Your task to perform on an android device: Open calendar and show me the third week of next month Image 0: 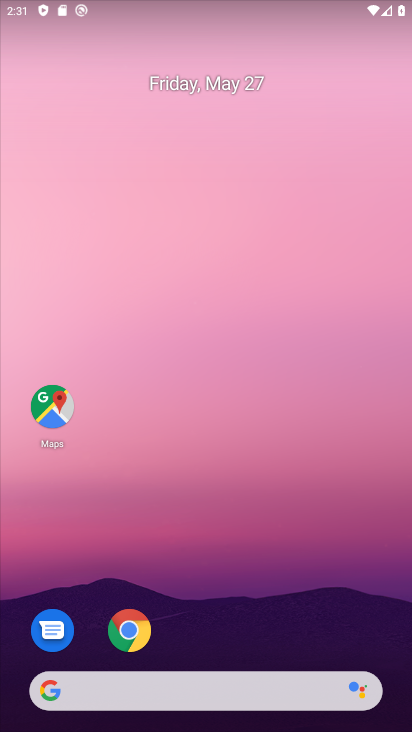
Step 0: drag from (201, 664) to (165, 42)
Your task to perform on an android device: Open calendar and show me the third week of next month Image 1: 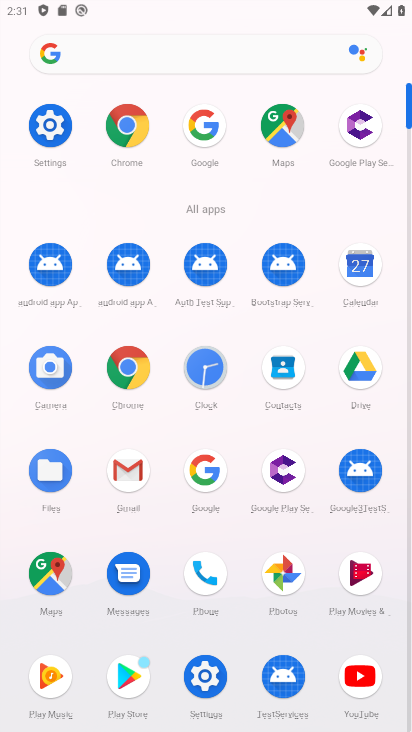
Step 1: click (356, 270)
Your task to perform on an android device: Open calendar and show me the third week of next month Image 2: 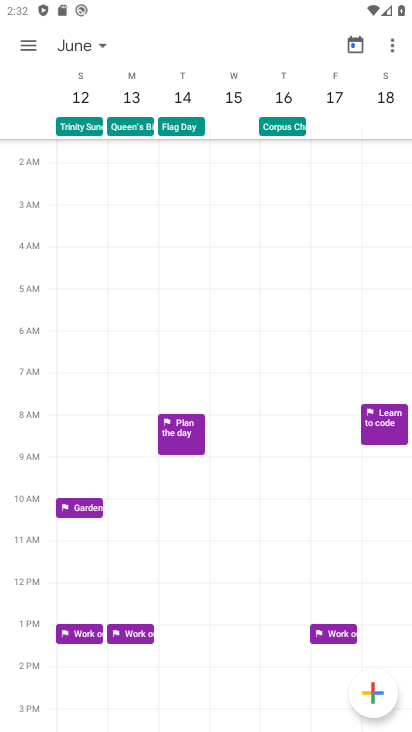
Step 2: task complete